Your task to perform on an android device: Go to Android settings Image 0: 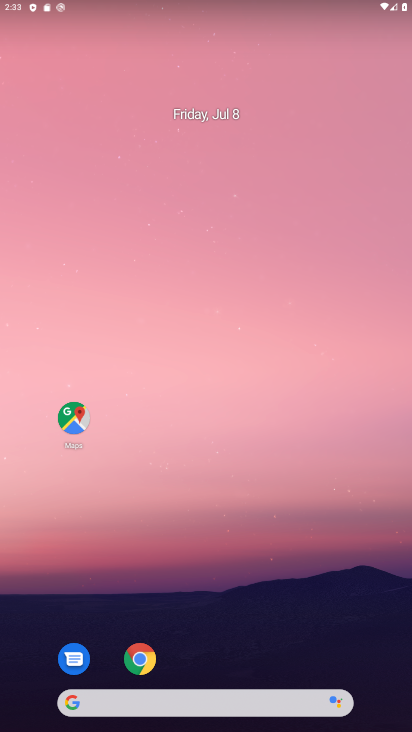
Step 0: press home button
Your task to perform on an android device: Go to Android settings Image 1: 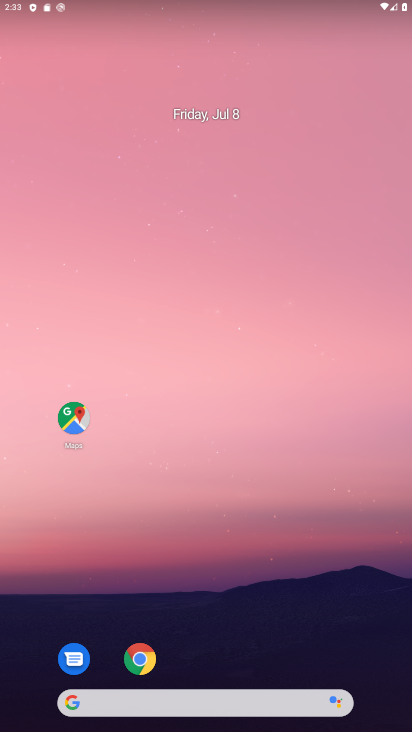
Step 1: drag from (221, 661) to (219, 40)
Your task to perform on an android device: Go to Android settings Image 2: 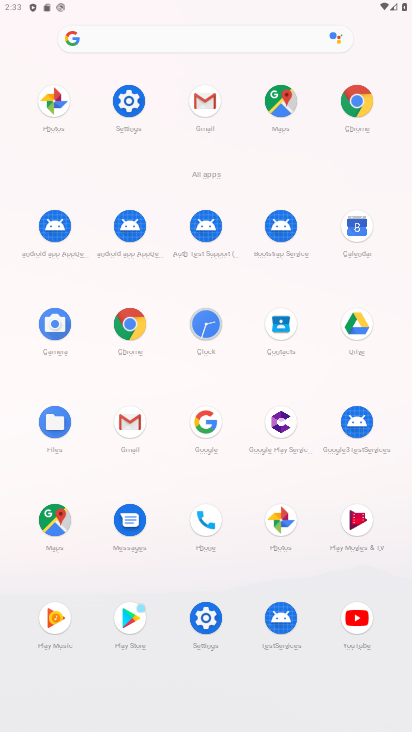
Step 2: click (126, 98)
Your task to perform on an android device: Go to Android settings Image 3: 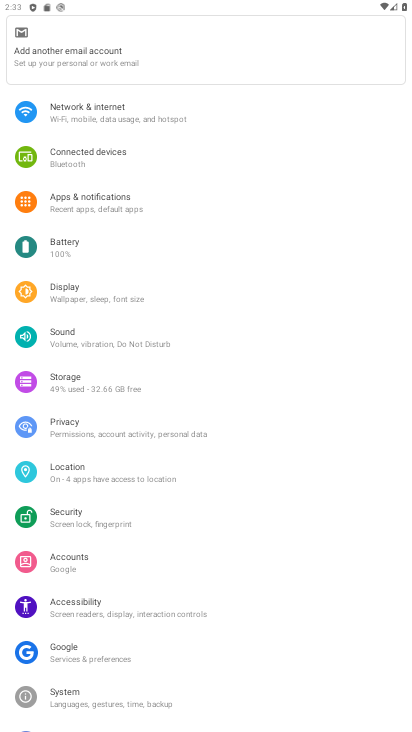
Step 3: drag from (144, 671) to (188, 93)
Your task to perform on an android device: Go to Android settings Image 4: 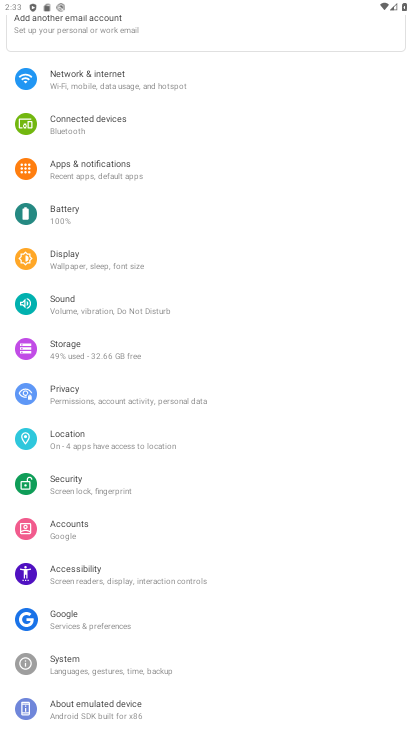
Step 4: click (147, 715)
Your task to perform on an android device: Go to Android settings Image 5: 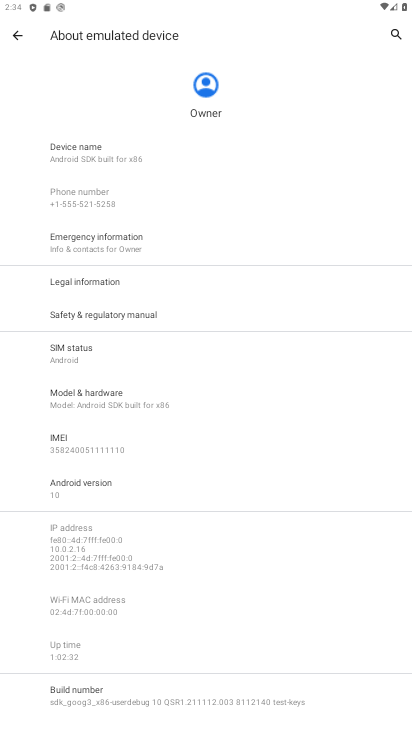
Step 5: task complete